Your task to perform on an android device: Search for Mexican restaurants on Maps Image 0: 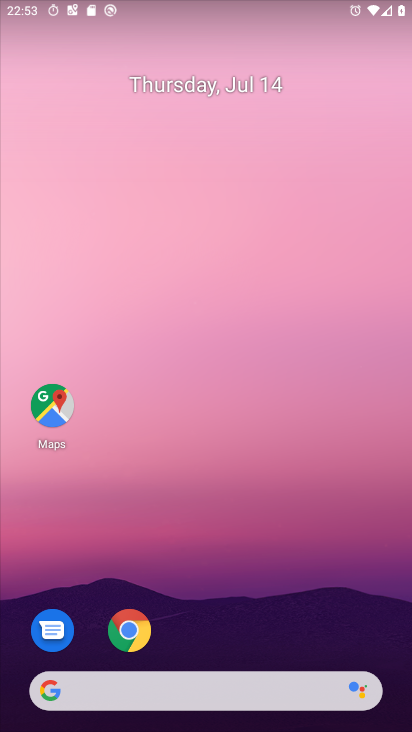
Step 0: drag from (203, 637) to (244, 178)
Your task to perform on an android device: Search for Mexican restaurants on Maps Image 1: 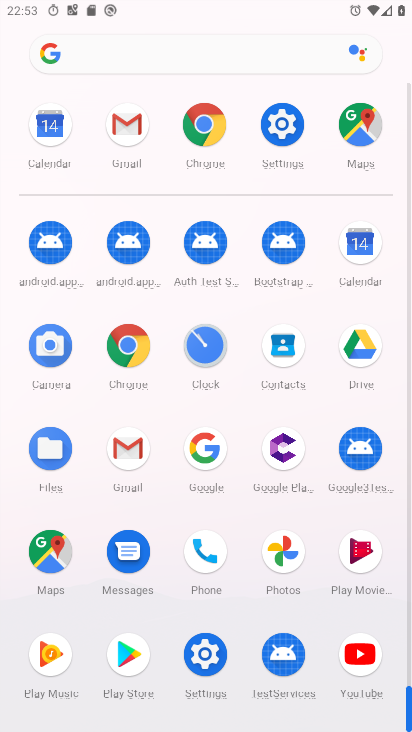
Step 1: click (38, 554)
Your task to perform on an android device: Search for Mexican restaurants on Maps Image 2: 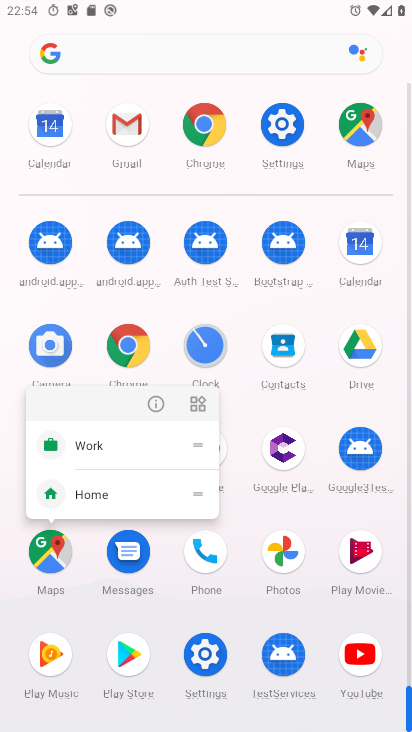
Step 2: click (157, 400)
Your task to perform on an android device: Search for Mexican restaurants on Maps Image 3: 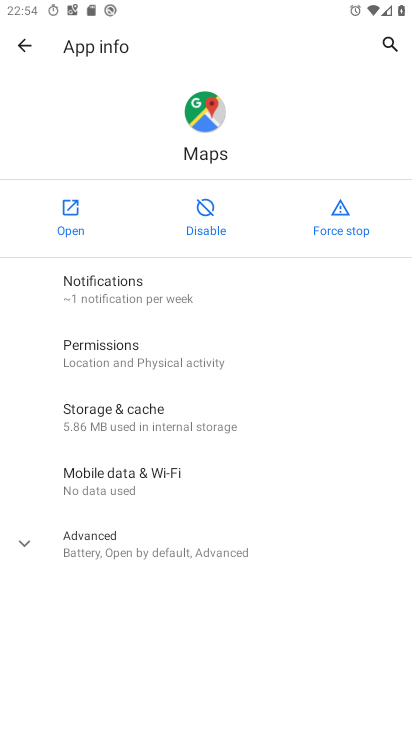
Step 3: click (77, 210)
Your task to perform on an android device: Search for Mexican restaurants on Maps Image 4: 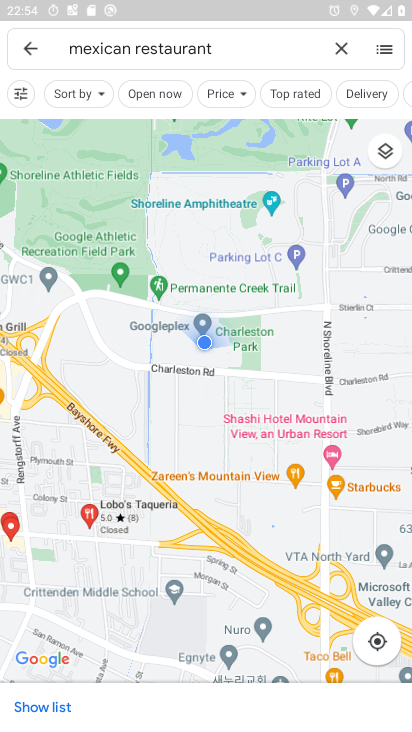
Step 4: task complete